Your task to perform on an android device: Clear the shopping cart on walmart.com. Add logitech g502 to the cart on walmart.com, then select checkout. Image 0: 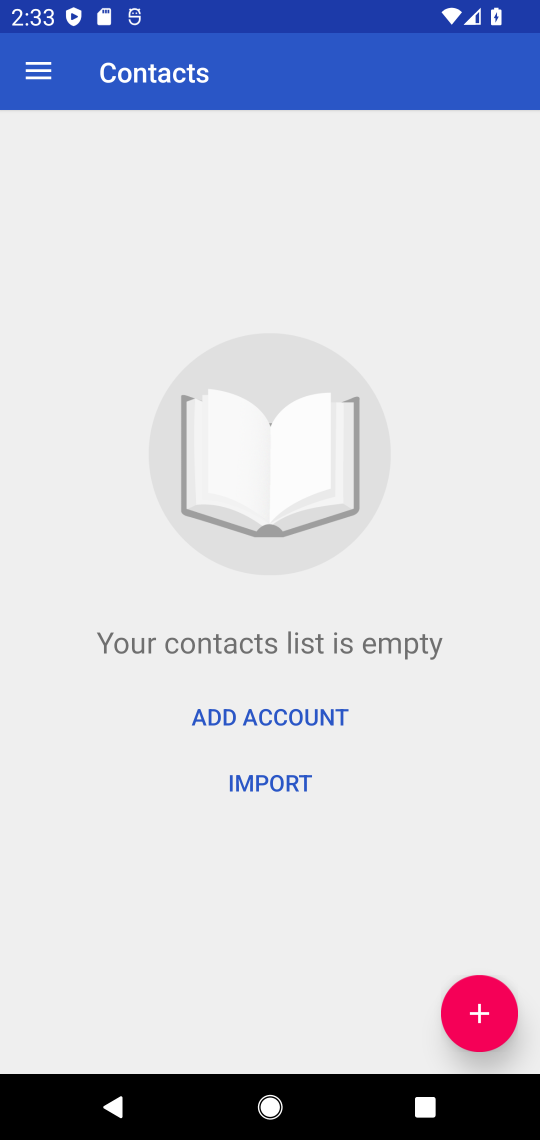
Step 0: press home button
Your task to perform on an android device: Clear the shopping cart on walmart.com. Add logitech g502 to the cart on walmart.com, then select checkout. Image 1: 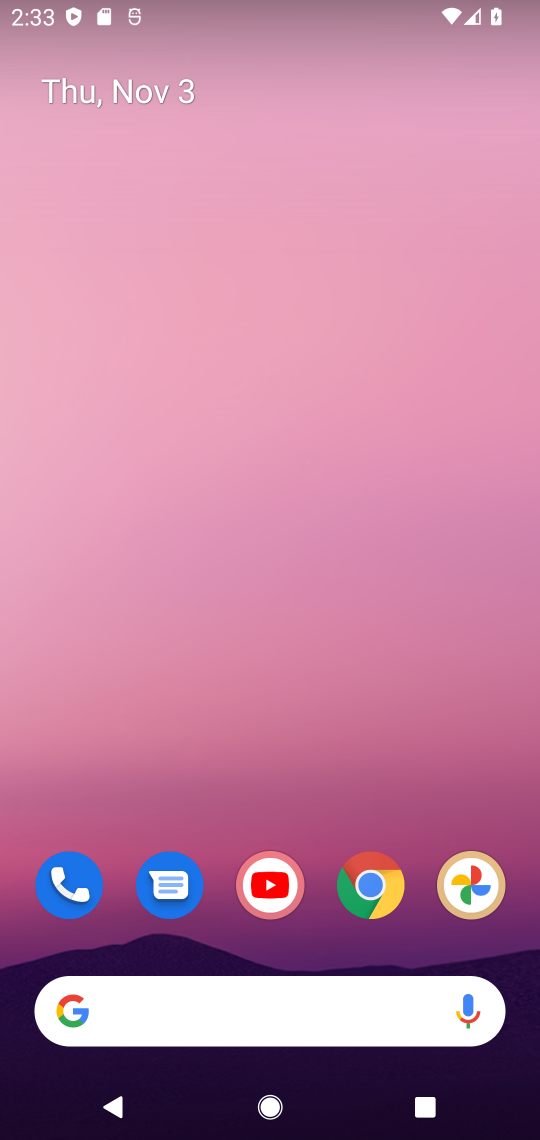
Step 1: click (379, 882)
Your task to perform on an android device: Clear the shopping cart on walmart.com. Add logitech g502 to the cart on walmart.com, then select checkout. Image 2: 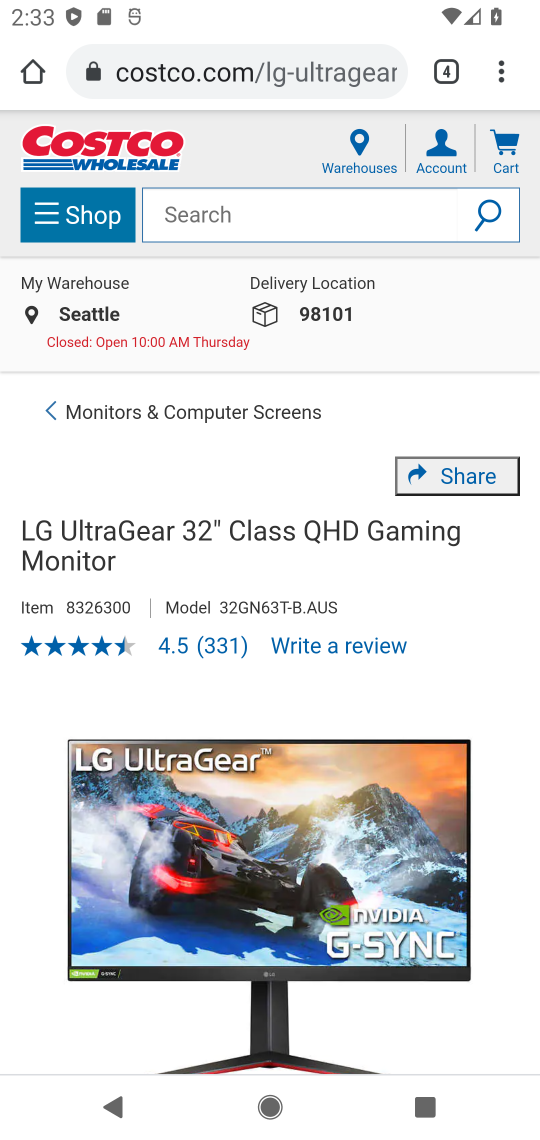
Step 2: drag from (499, 85) to (305, 230)
Your task to perform on an android device: Clear the shopping cart on walmart.com. Add logitech g502 to the cart on walmart.com, then select checkout. Image 3: 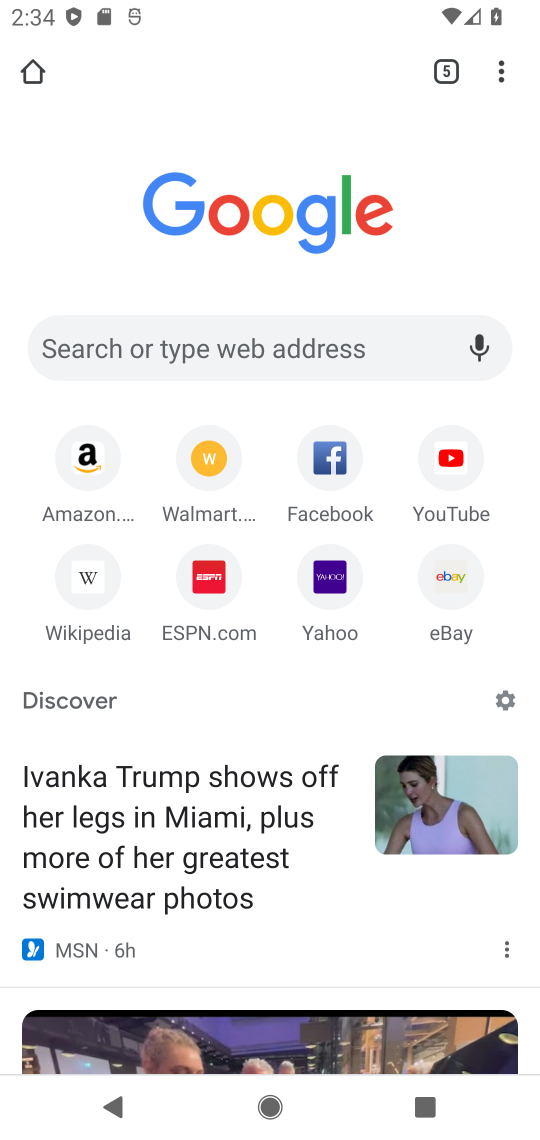
Step 3: click (195, 346)
Your task to perform on an android device: Clear the shopping cart on walmart.com. Add logitech g502 to the cart on walmart.com, then select checkout. Image 4: 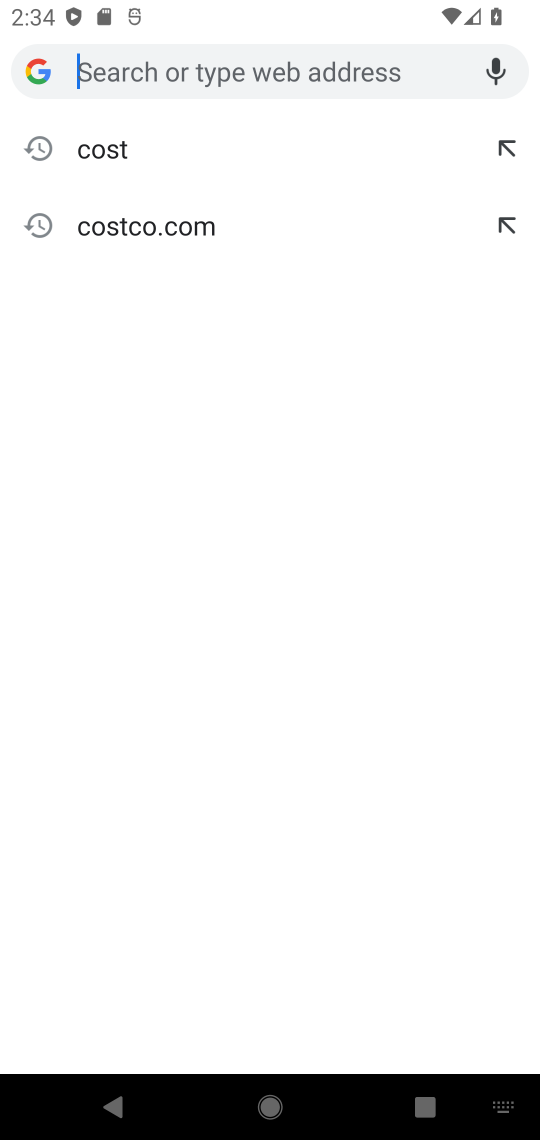
Step 4: type "walmart.com"
Your task to perform on an android device: Clear the shopping cart on walmart.com. Add logitech g502 to the cart on walmart.com, then select checkout. Image 5: 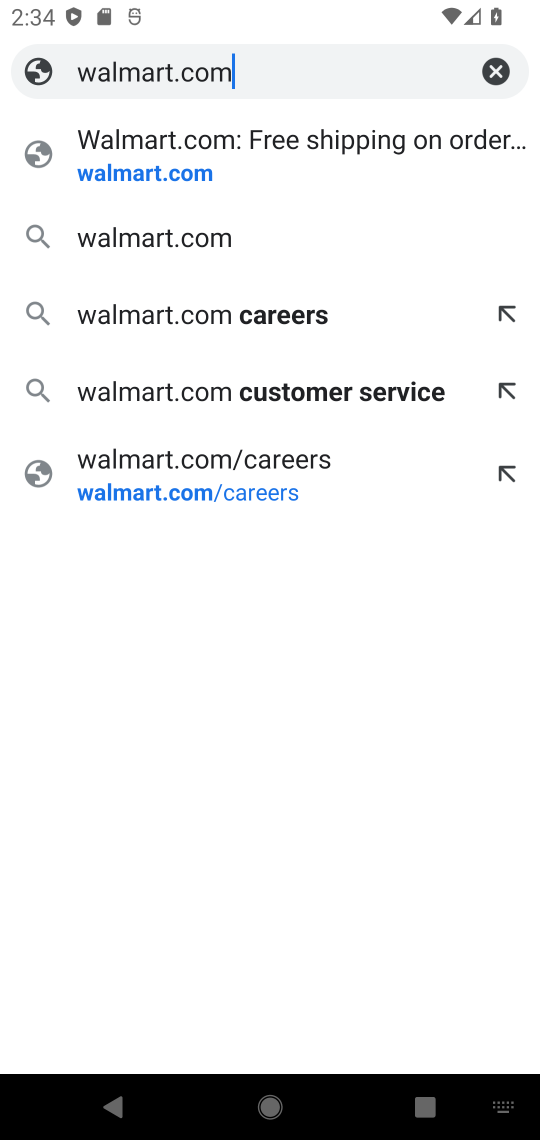
Step 5: click (164, 232)
Your task to perform on an android device: Clear the shopping cart on walmart.com. Add logitech g502 to the cart on walmart.com, then select checkout. Image 6: 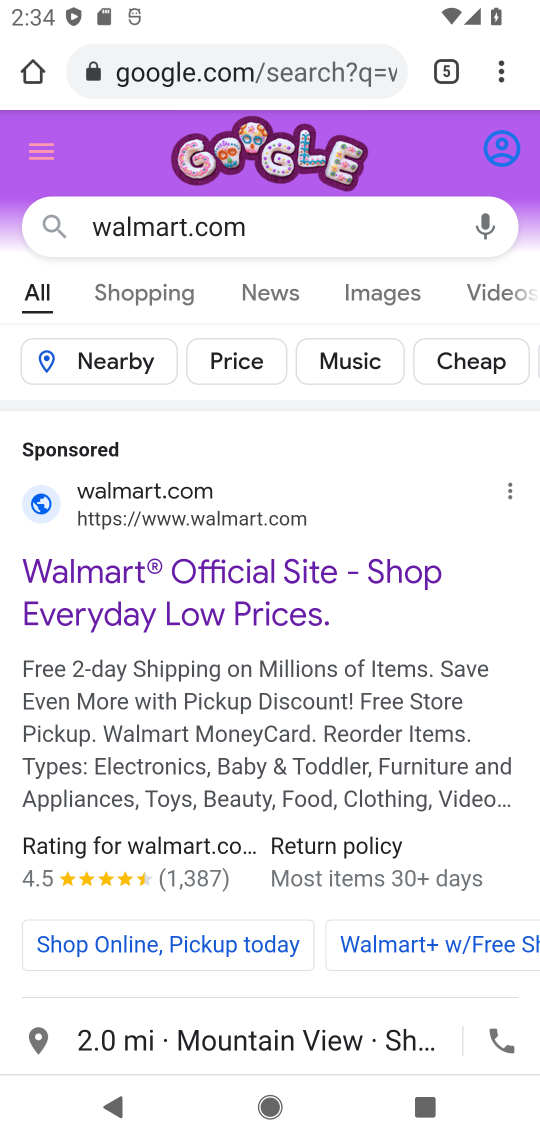
Step 6: click (158, 586)
Your task to perform on an android device: Clear the shopping cart on walmart.com. Add logitech g502 to the cart on walmart.com, then select checkout. Image 7: 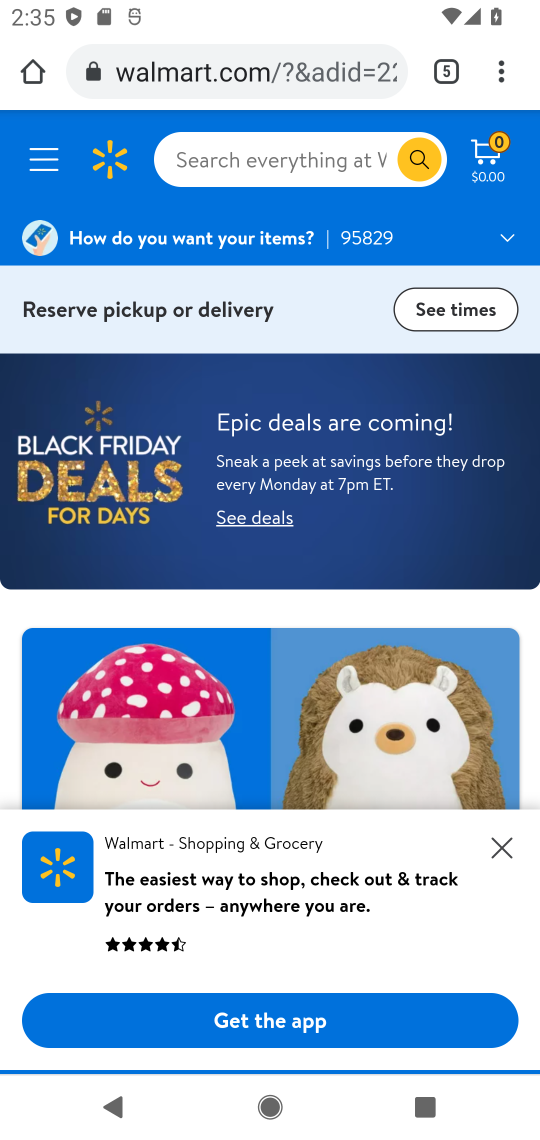
Step 7: click (297, 163)
Your task to perform on an android device: Clear the shopping cart on walmart.com. Add logitech g502 to the cart on walmart.com, then select checkout. Image 8: 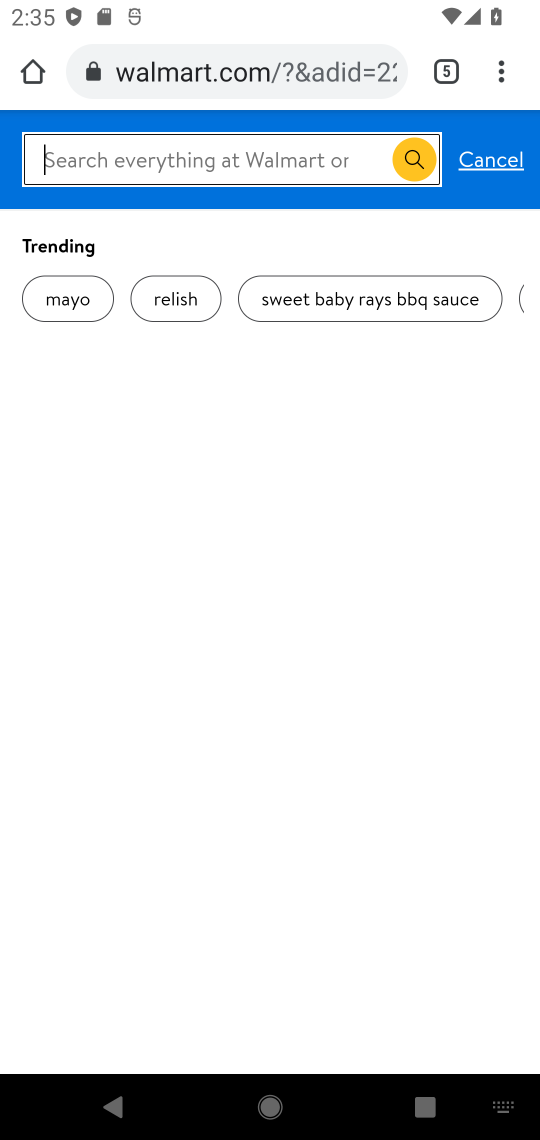
Step 8: type "logitech g502"
Your task to perform on an android device: Clear the shopping cart on walmart.com. Add logitech g502 to the cart on walmart.com, then select checkout. Image 9: 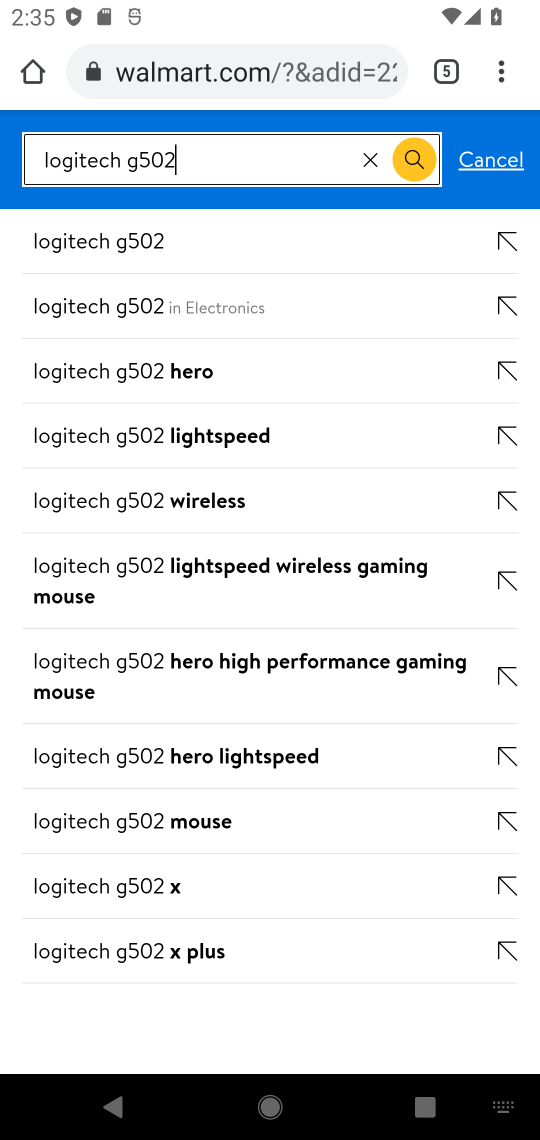
Step 9: click (117, 246)
Your task to perform on an android device: Clear the shopping cart on walmart.com. Add logitech g502 to the cart on walmart.com, then select checkout. Image 10: 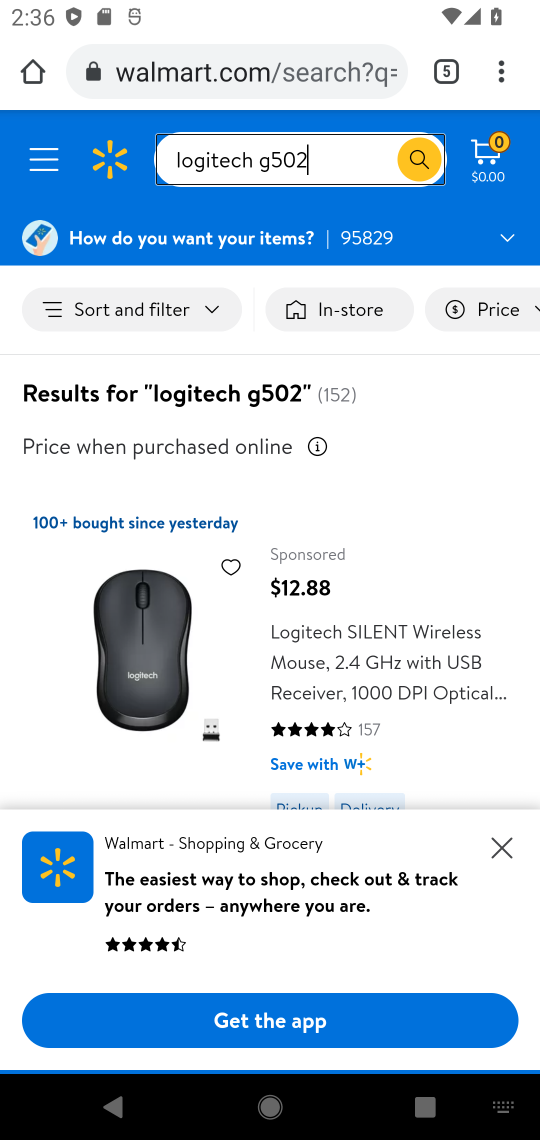
Step 10: click (500, 846)
Your task to perform on an android device: Clear the shopping cart on walmart.com. Add logitech g502 to the cart on walmart.com, then select checkout. Image 11: 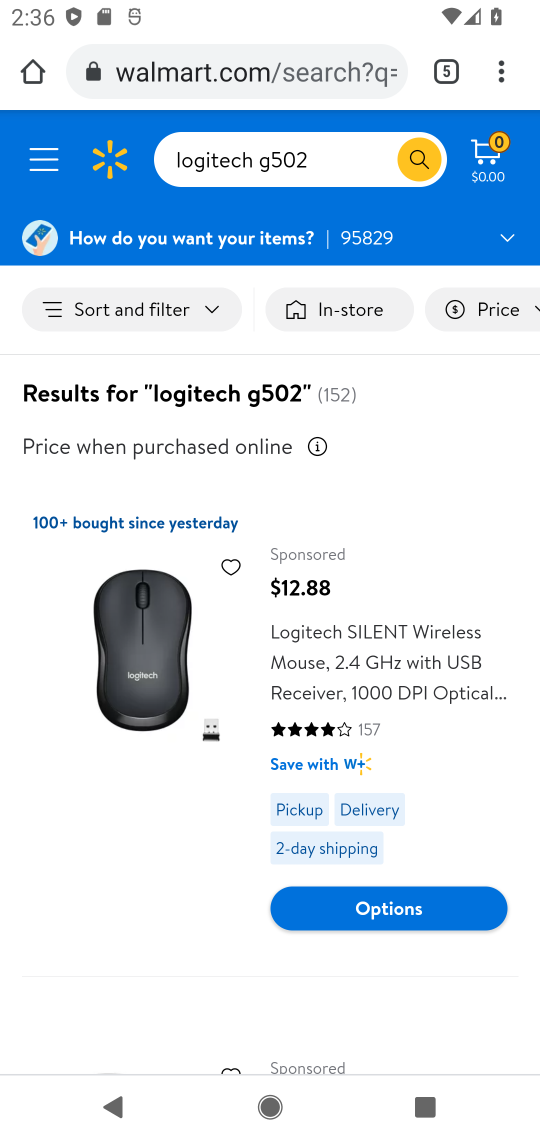
Step 11: task complete